Your task to perform on an android device: Go to battery settings Image 0: 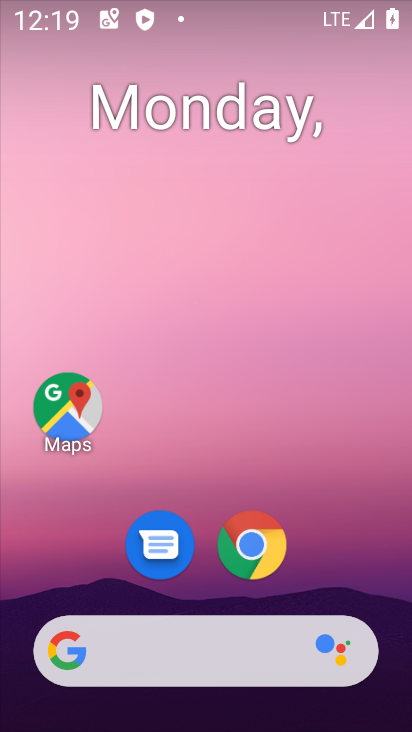
Step 0: drag from (371, 585) to (383, 139)
Your task to perform on an android device: Go to battery settings Image 1: 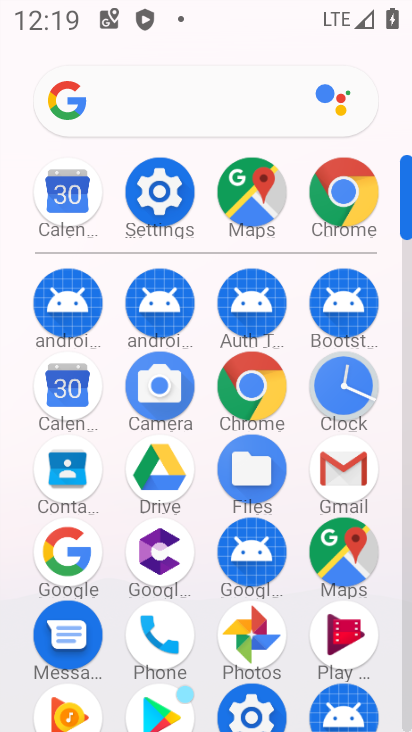
Step 1: click (177, 190)
Your task to perform on an android device: Go to battery settings Image 2: 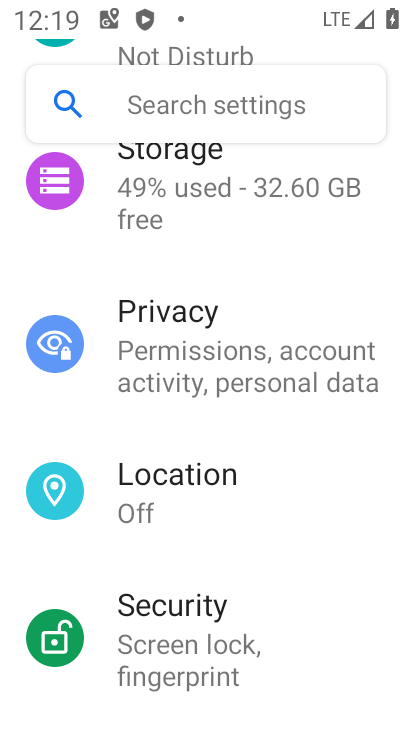
Step 2: drag from (330, 584) to (351, 450)
Your task to perform on an android device: Go to battery settings Image 3: 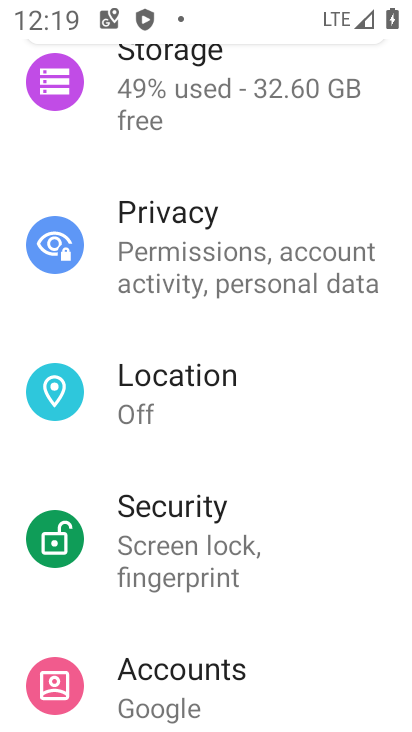
Step 3: drag from (352, 626) to (360, 450)
Your task to perform on an android device: Go to battery settings Image 4: 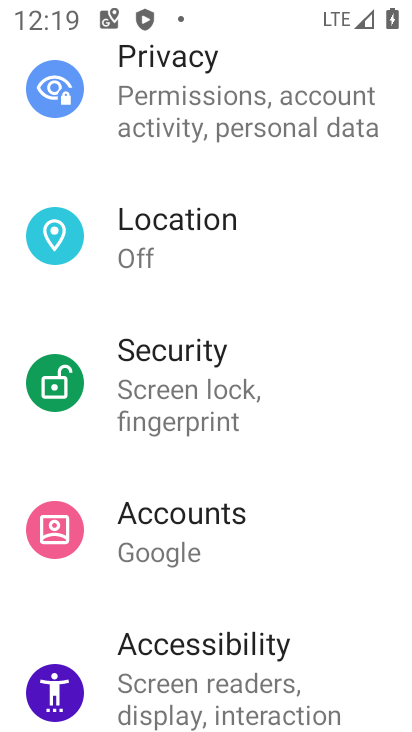
Step 4: drag from (350, 596) to (363, 463)
Your task to perform on an android device: Go to battery settings Image 5: 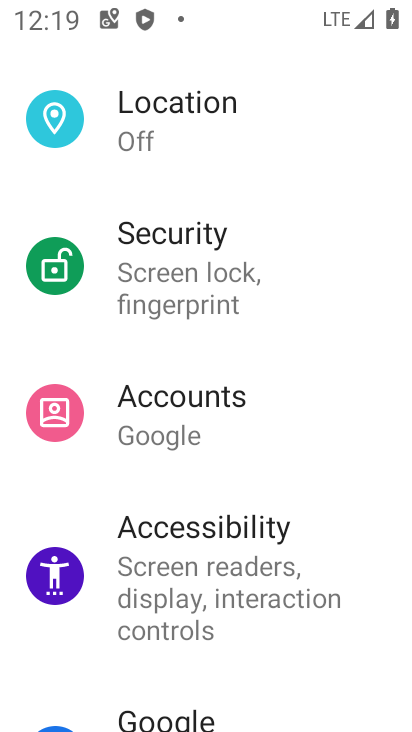
Step 5: drag from (348, 298) to (335, 405)
Your task to perform on an android device: Go to battery settings Image 6: 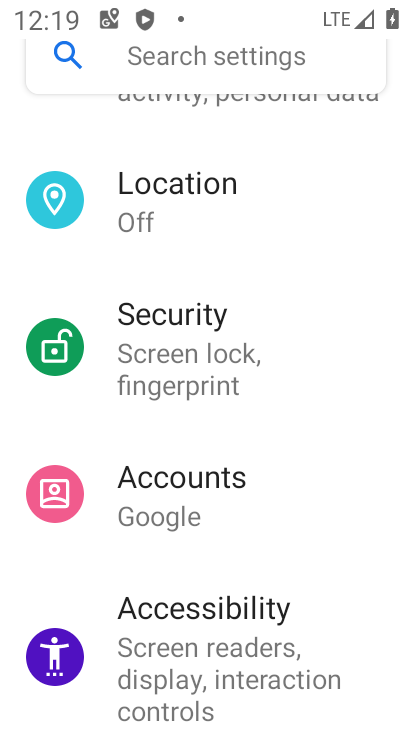
Step 6: drag from (330, 261) to (322, 402)
Your task to perform on an android device: Go to battery settings Image 7: 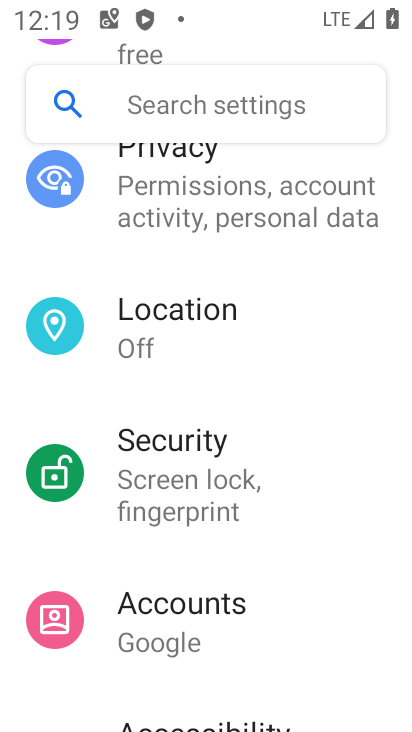
Step 7: drag from (323, 267) to (324, 382)
Your task to perform on an android device: Go to battery settings Image 8: 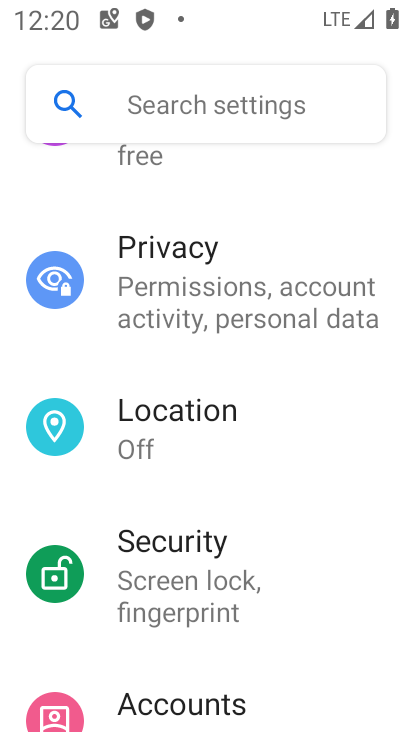
Step 8: drag from (324, 220) to (327, 345)
Your task to perform on an android device: Go to battery settings Image 9: 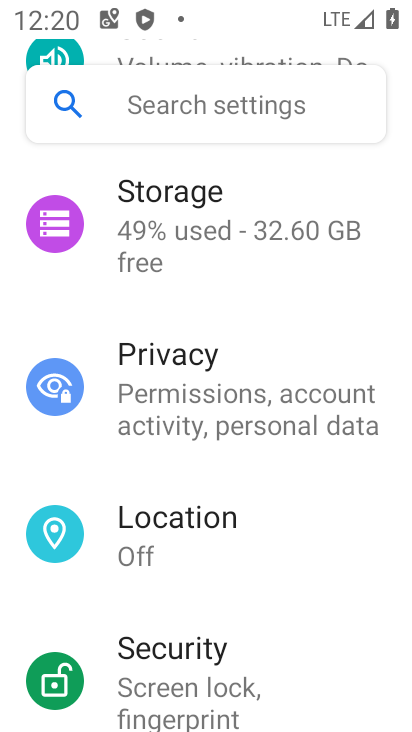
Step 9: drag from (327, 176) to (329, 405)
Your task to perform on an android device: Go to battery settings Image 10: 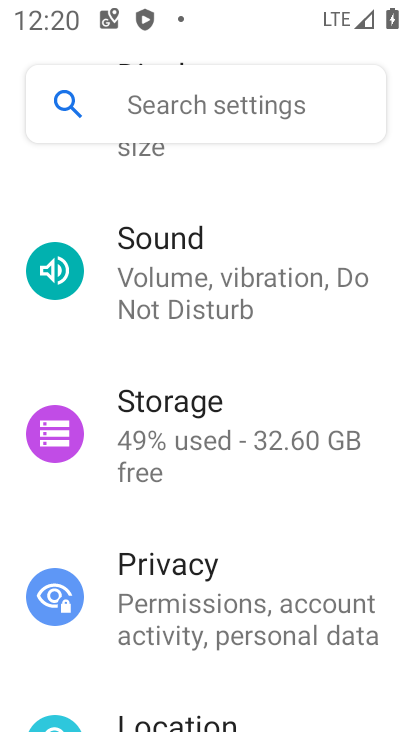
Step 10: drag from (315, 200) to (314, 377)
Your task to perform on an android device: Go to battery settings Image 11: 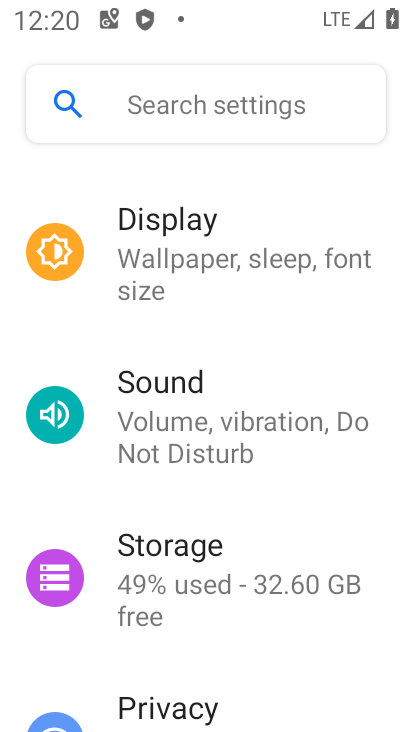
Step 11: drag from (287, 190) to (280, 386)
Your task to perform on an android device: Go to battery settings Image 12: 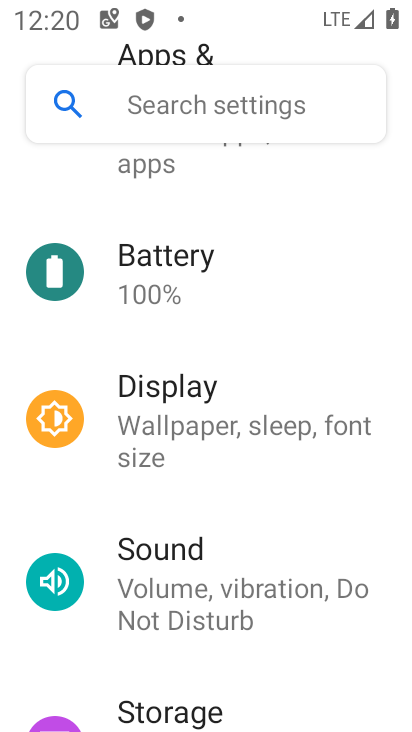
Step 12: click (228, 281)
Your task to perform on an android device: Go to battery settings Image 13: 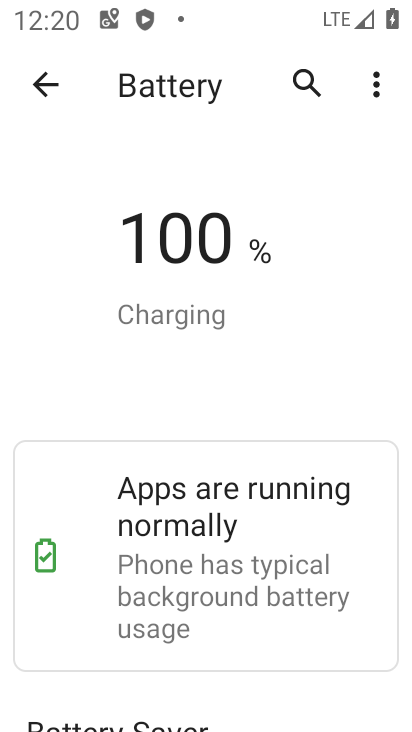
Step 13: task complete